Your task to perform on an android device: turn off airplane mode Image 0: 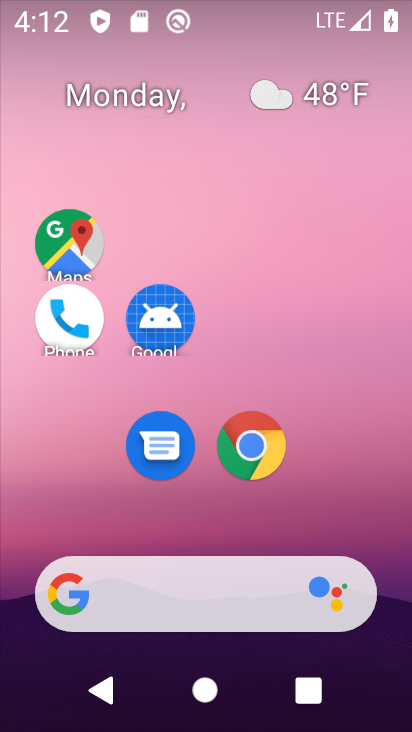
Step 0: drag from (330, 496) to (270, 31)
Your task to perform on an android device: turn off airplane mode Image 1: 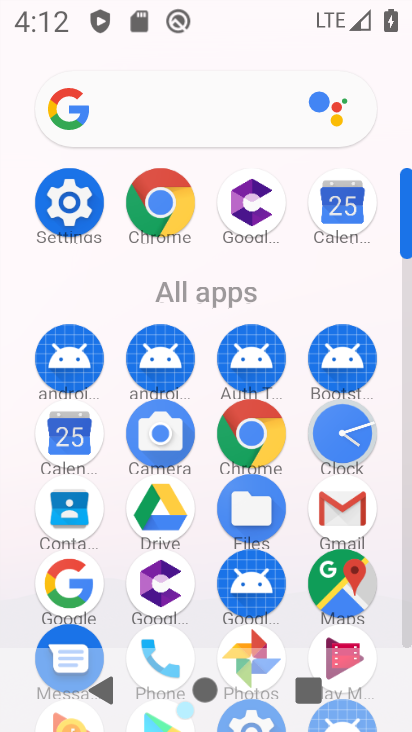
Step 1: click (76, 224)
Your task to perform on an android device: turn off airplane mode Image 2: 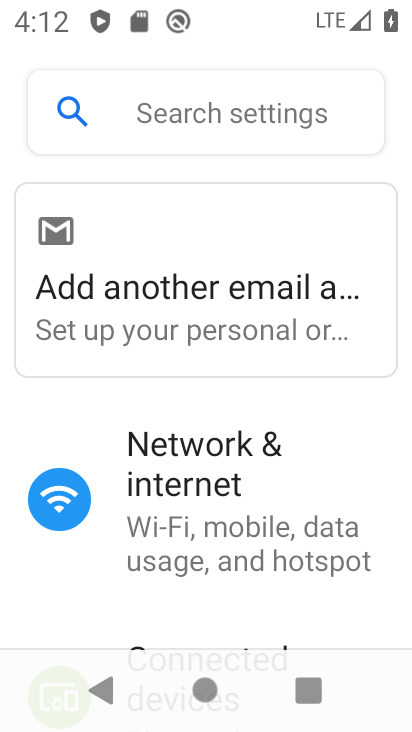
Step 2: click (222, 453)
Your task to perform on an android device: turn off airplane mode Image 3: 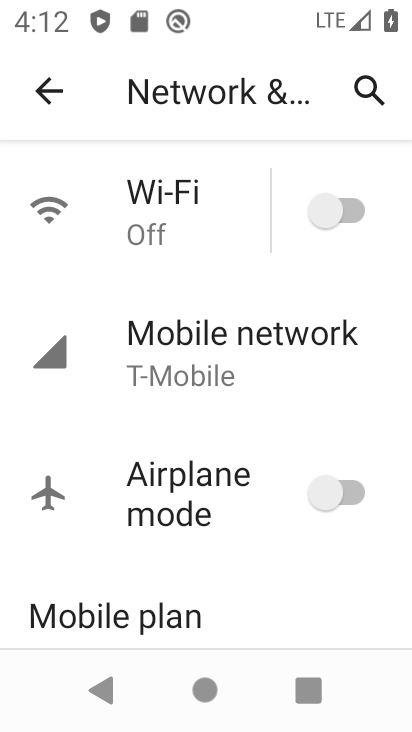
Step 3: task complete